Your task to perform on an android device: Toggle the flashlight Image 0: 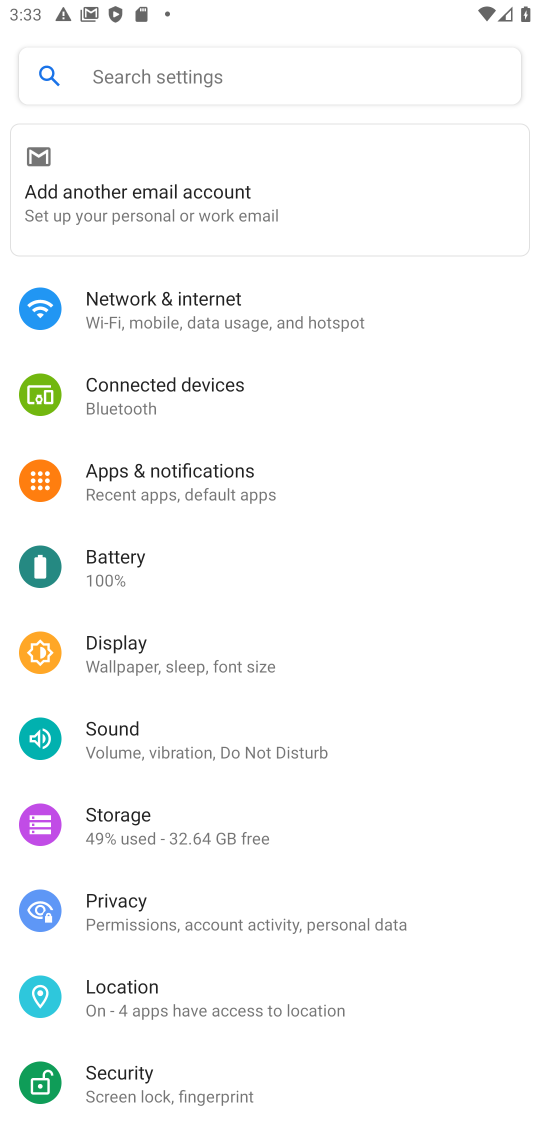
Step 0: click (171, 68)
Your task to perform on an android device: Toggle the flashlight Image 1: 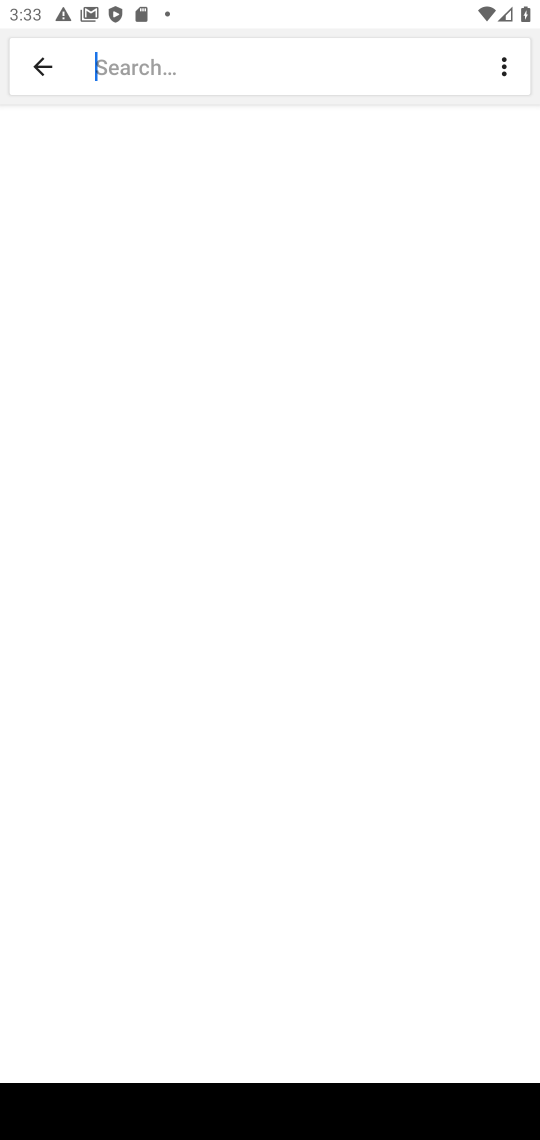
Step 1: type "flashlight"
Your task to perform on an android device: Toggle the flashlight Image 2: 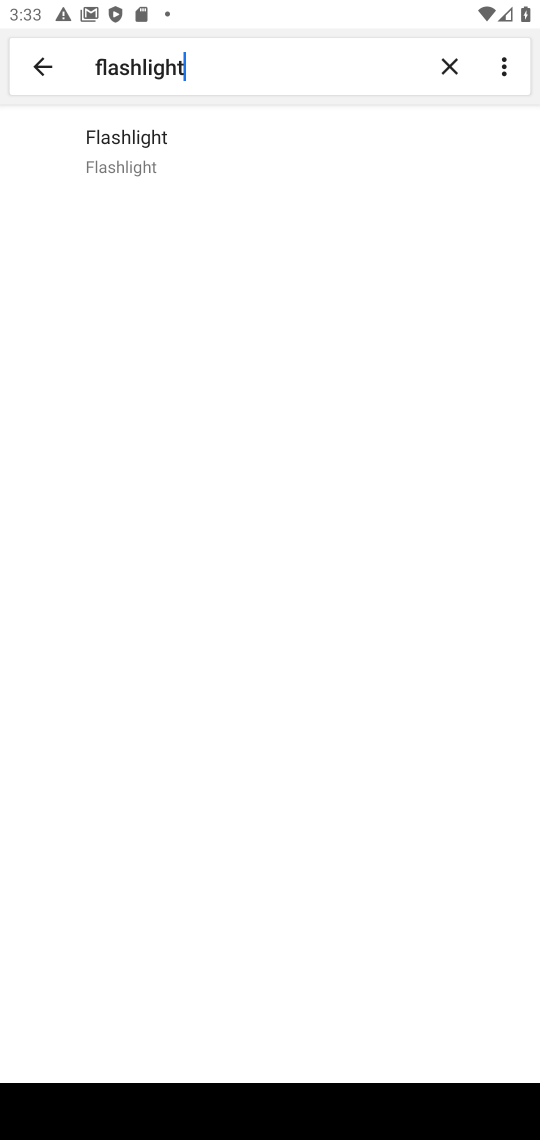
Step 2: click (181, 163)
Your task to perform on an android device: Toggle the flashlight Image 3: 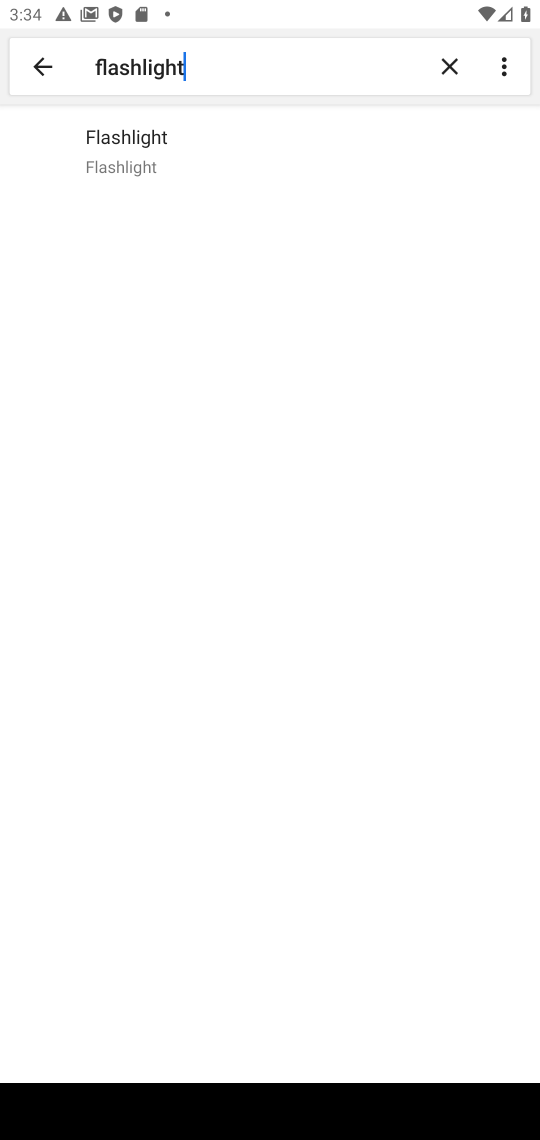
Step 3: click (181, 154)
Your task to perform on an android device: Toggle the flashlight Image 4: 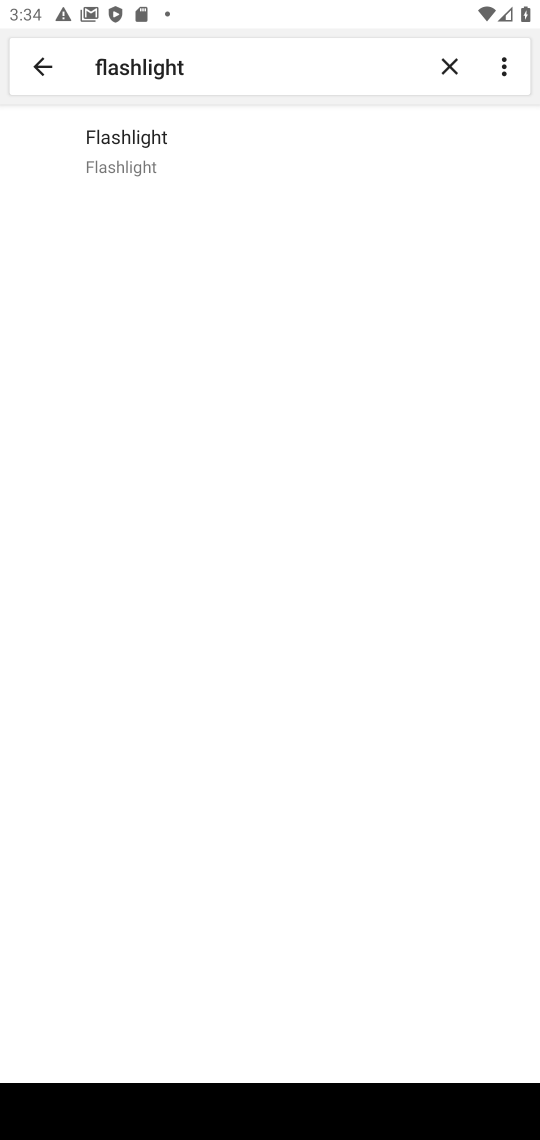
Step 4: task complete